Your task to perform on an android device: Open Reddit.com Image 0: 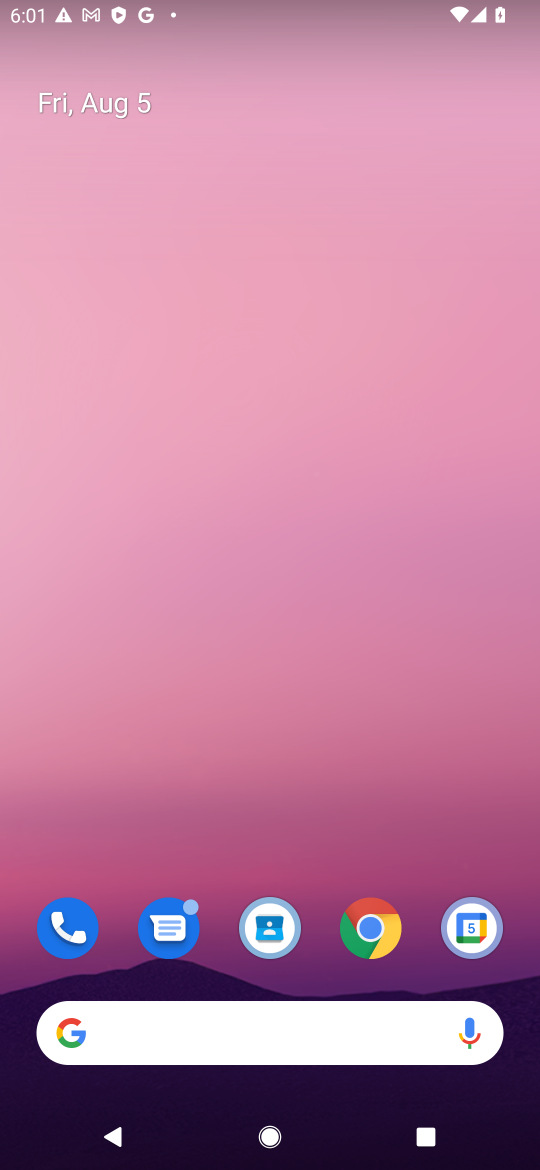
Step 0: click (391, 938)
Your task to perform on an android device: Open Reddit.com Image 1: 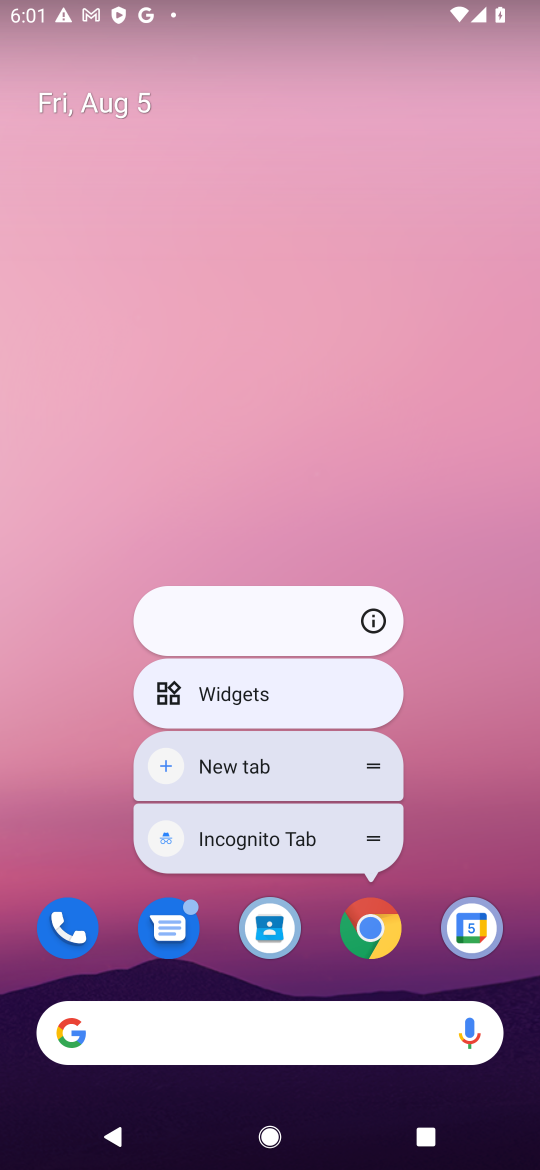
Step 1: click (390, 937)
Your task to perform on an android device: Open Reddit.com Image 2: 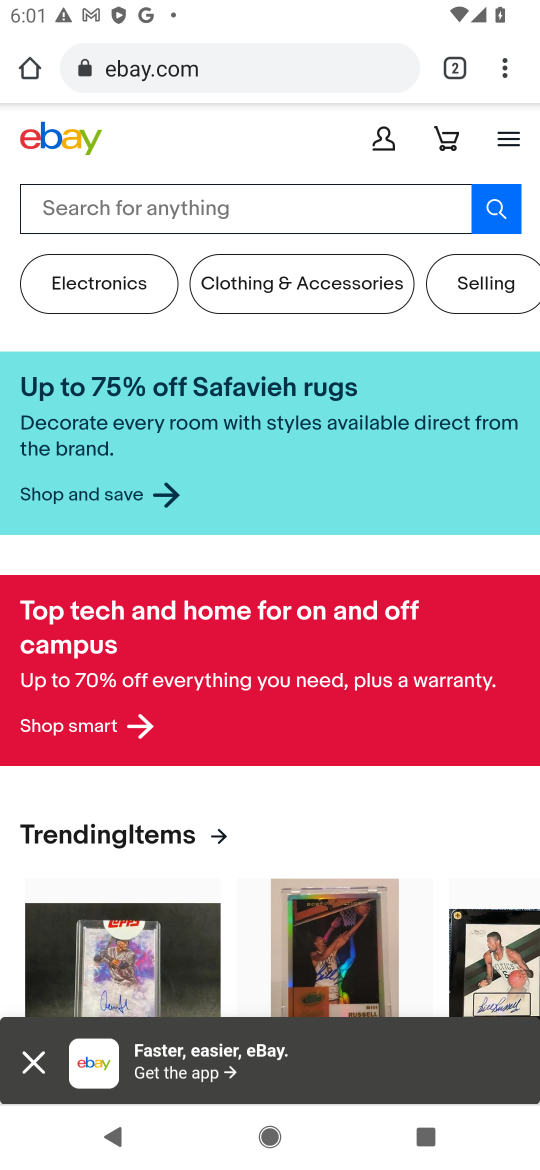
Step 2: click (465, 60)
Your task to perform on an android device: Open Reddit.com Image 3: 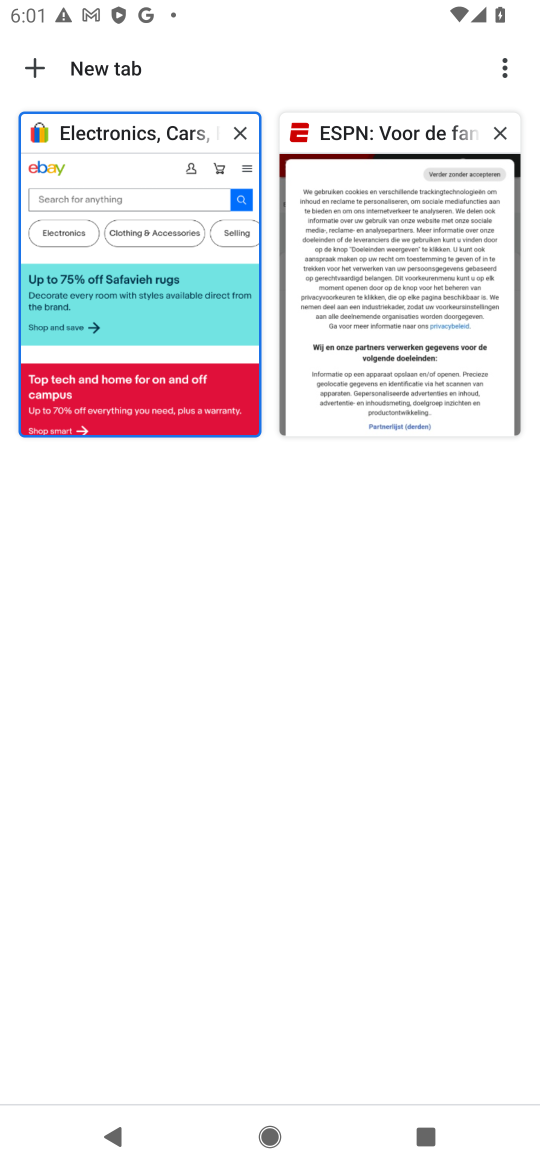
Step 3: click (35, 80)
Your task to perform on an android device: Open Reddit.com Image 4: 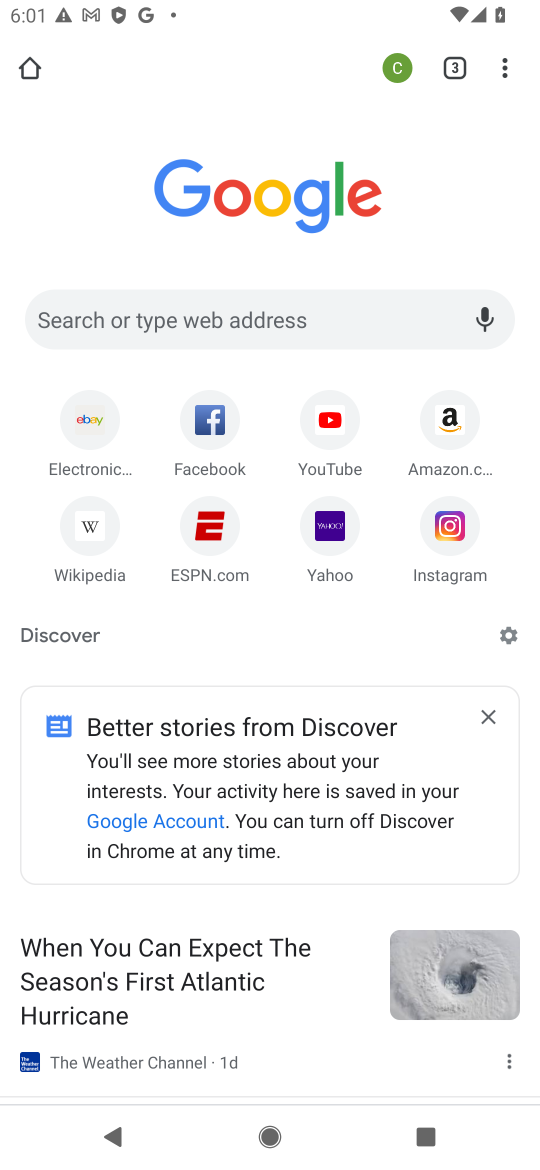
Step 4: click (215, 321)
Your task to perform on an android device: Open Reddit.com Image 5: 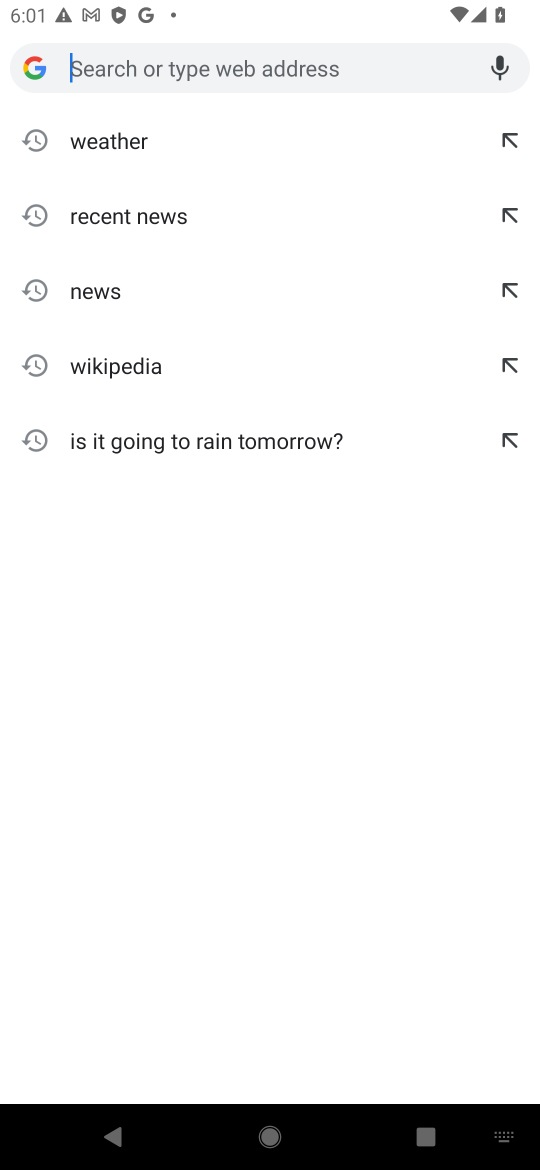
Step 5: type "Reddit.com"
Your task to perform on an android device: Open Reddit.com Image 6: 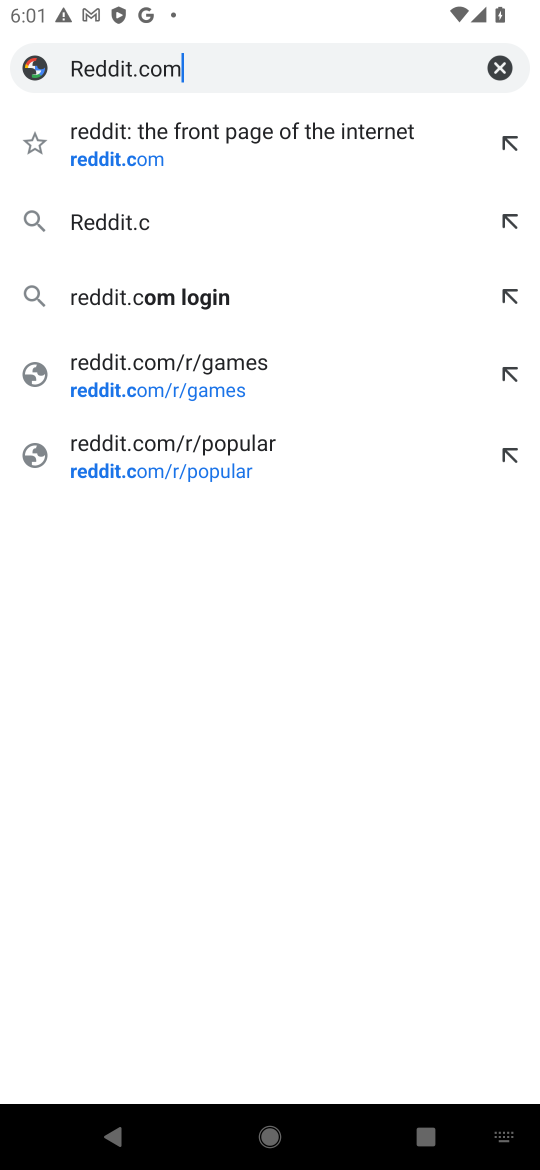
Step 6: type ""
Your task to perform on an android device: Open Reddit.com Image 7: 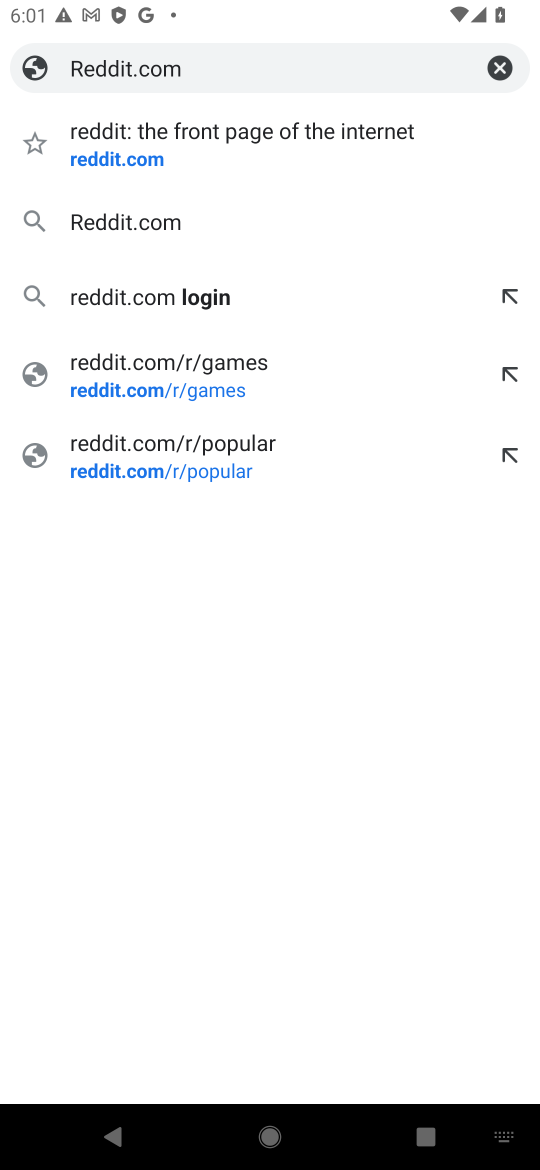
Step 7: click (132, 158)
Your task to perform on an android device: Open Reddit.com Image 8: 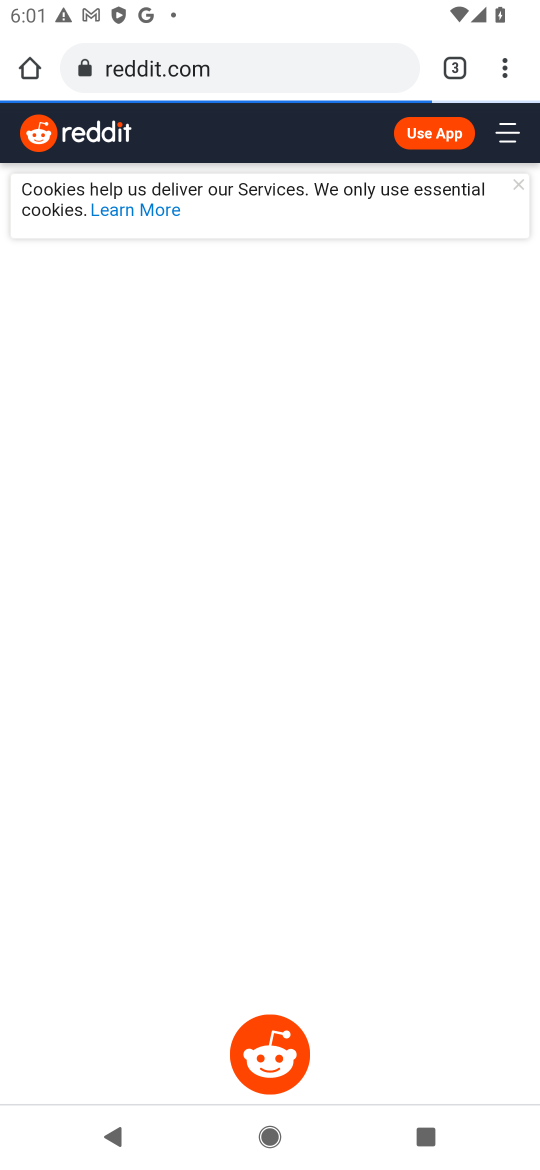
Step 8: task complete